Your task to perform on an android device: check data usage Image 0: 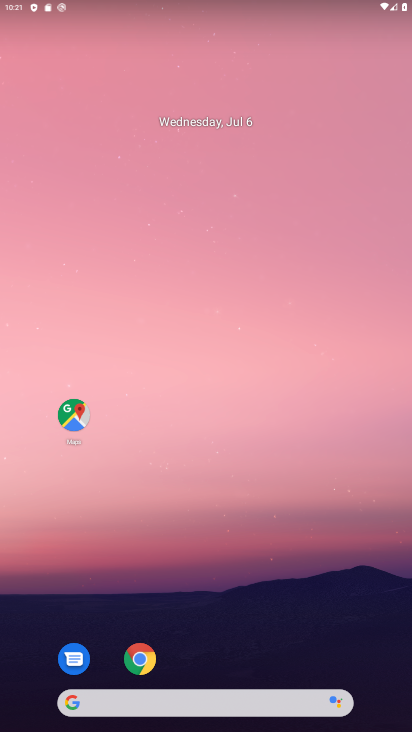
Step 0: drag from (248, 631) to (219, 102)
Your task to perform on an android device: check data usage Image 1: 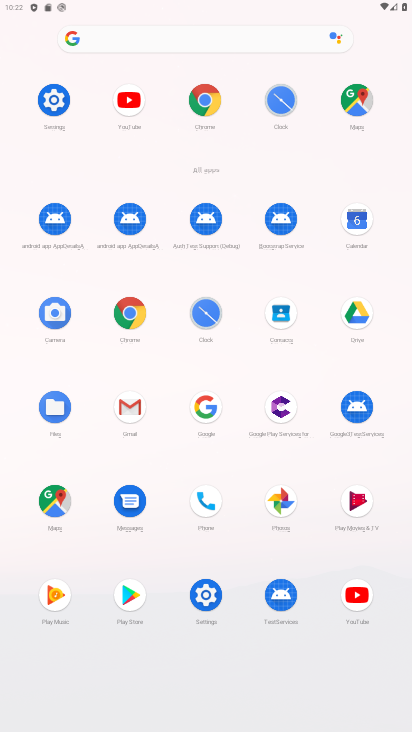
Step 1: click (208, 606)
Your task to perform on an android device: check data usage Image 2: 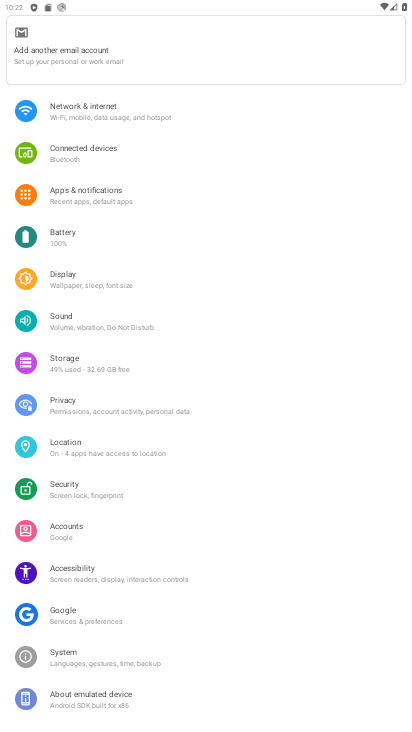
Step 2: click (151, 113)
Your task to perform on an android device: check data usage Image 3: 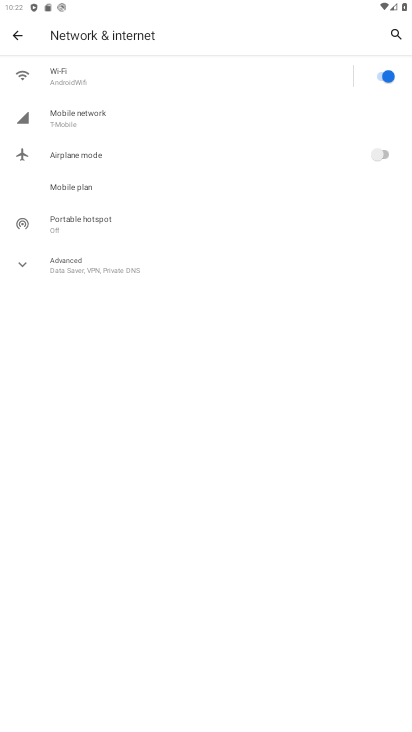
Step 3: click (74, 259)
Your task to perform on an android device: check data usage Image 4: 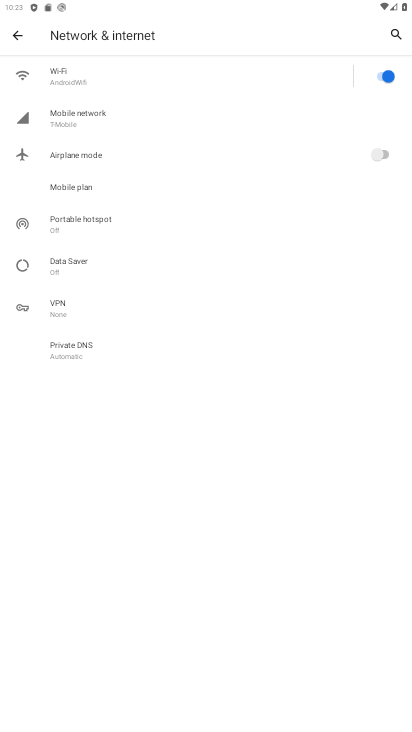
Step 4: click (69, 266)
Your task to perform on an android device: check data usage Image 5: 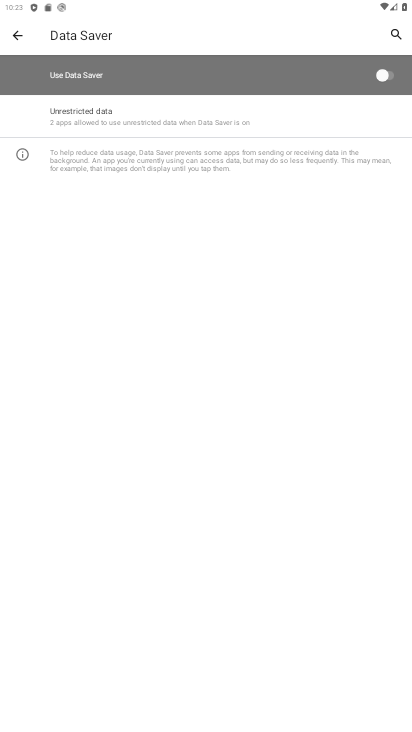
Step 5: click (25, 29)
Your task to perform on an android device: check data usage Image 6: 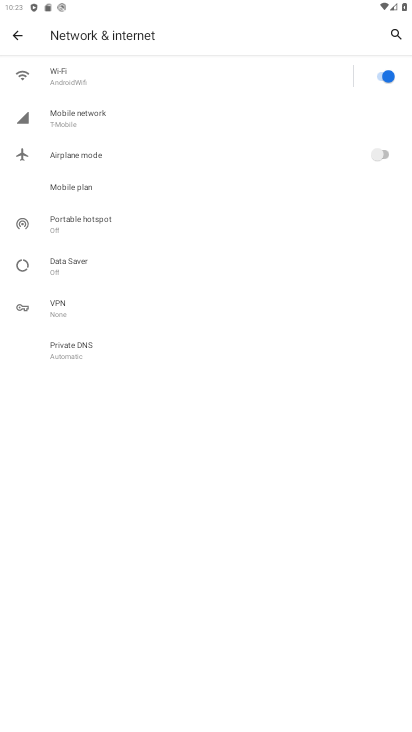
Step 6: click (82, 127)
Your task to perform on an android device: check data usage Image 7: 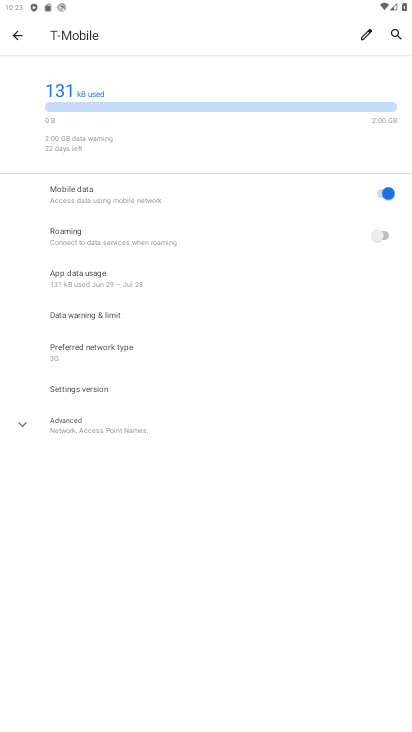
Step 7: click (122, 277)
Your task to perform on an android device: check data usage Image 8: 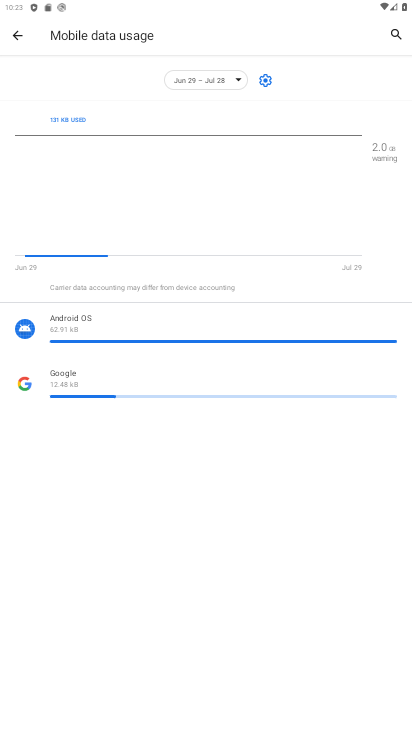
Step 8: task complete